Your task to perform on an android device: clear all cookies in the chrome app Image 0: 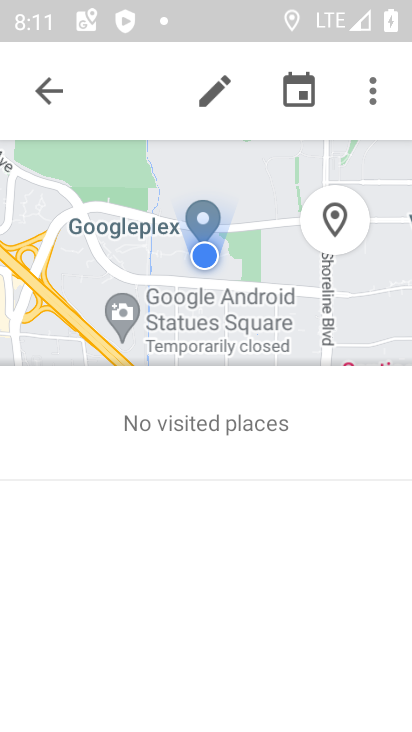
Step 0: press home button
Your task to perform on an android device: clear all cookies in the chrome app Image 1: 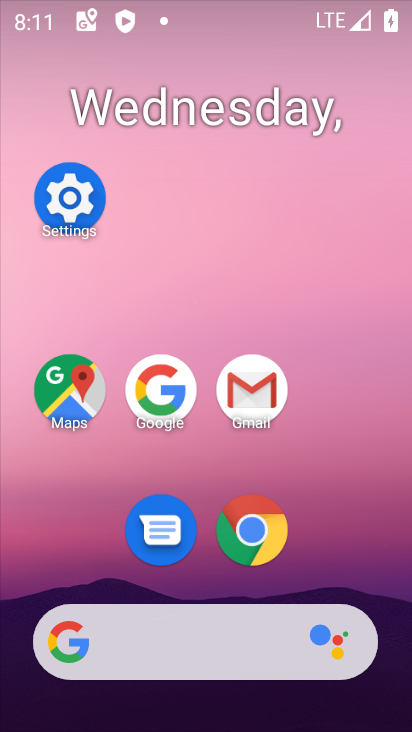
Step 1: click (246, 550)
Your task to perform on an android device: clear all cookies in the chrome app Image 2: 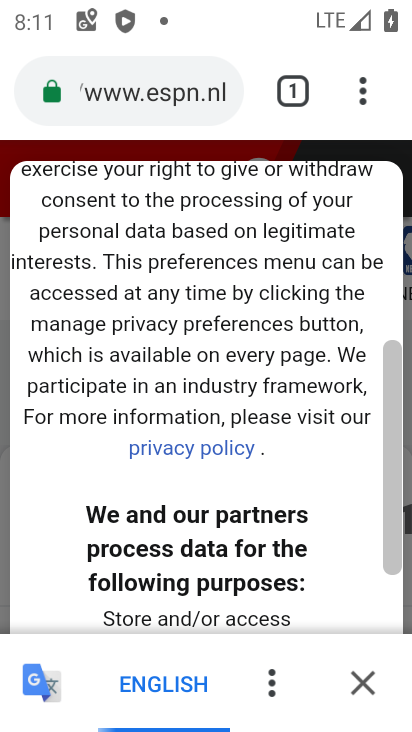
Step 2: click (372, 95)
Your task to perform on an android device: clear all cookies in the chrome app Image 3: 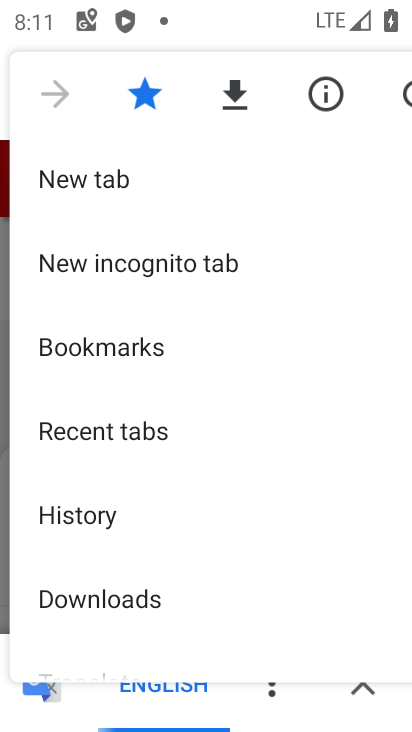
Step 3: drag from (271, 509) to (266, 127)
Your task to perform on an android device: clear all cookies in the chrome app Image 4: 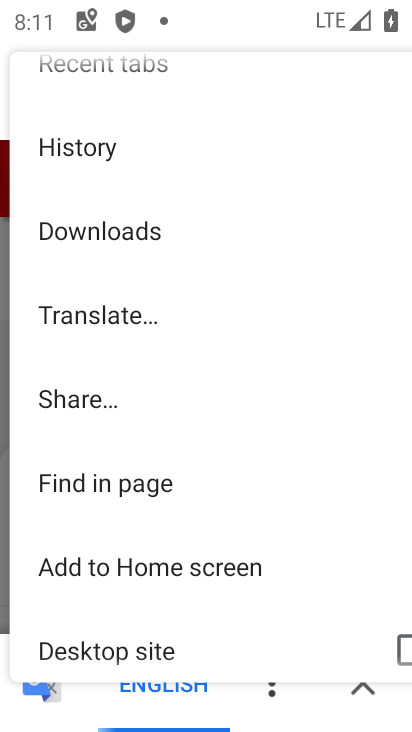
Step 4: drag from (183, 498) to (229, 167)
Your task to perform on an android device: clear all cookies in the chrome app Image 5: 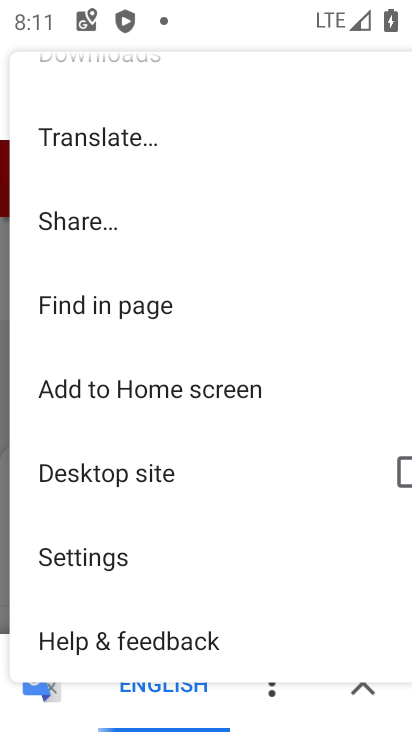
Step 5: click (135, 553)
Your task to perform on an android device: clear all cookies in the chrome app Image 6: 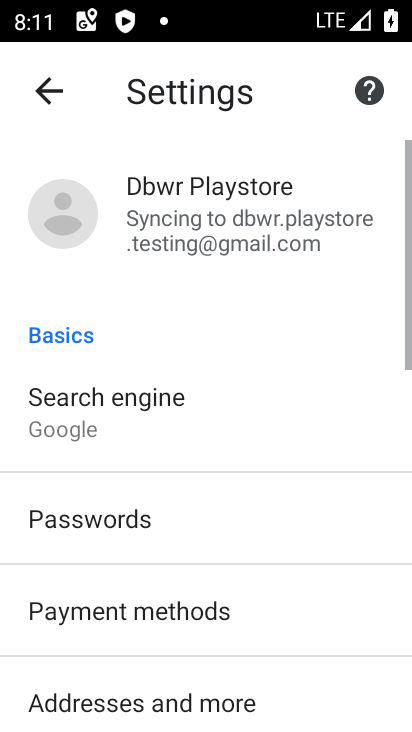
Step 6: drag from (120, 526) to (151, 150)
Your task to perform on an android device: clear all cookies in the chrome app Image 7: 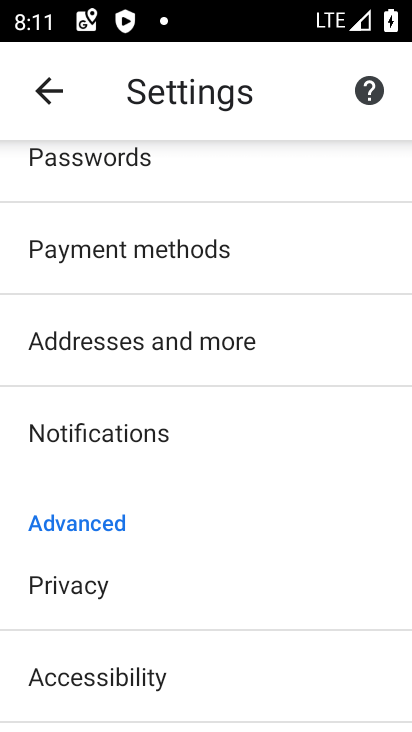
Step 7: click (88, 570)
Your task to perform on an android device: clear all cookies in the chrome app Image 8: 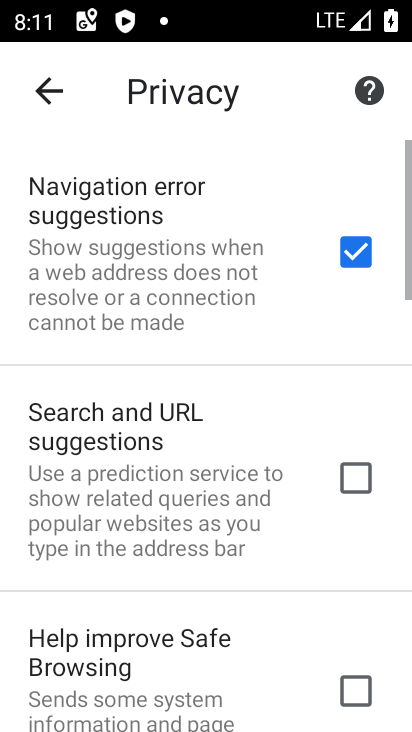
Step 8: drag from (88, 570) to (162, 98)
Your task to perform on an android device: clear all cookies in the chrome app Image 9: 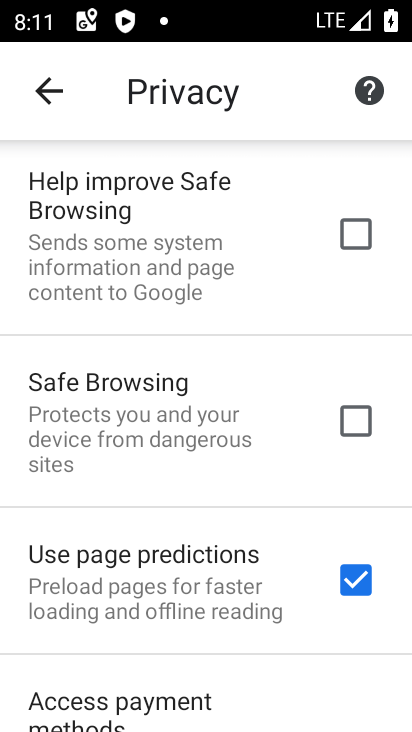
Step 9: drag from (209, 580) to (241, 195)
Your task to perform on an android device: clear all cookies in the chrome app Image 10: 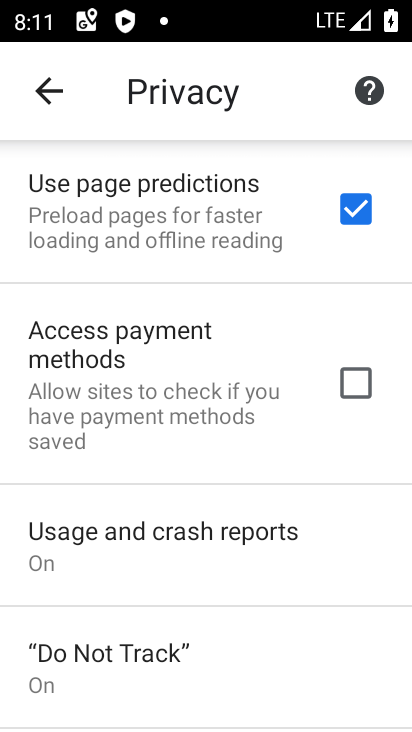
Step 10: drag from (253, 625) to (244, 225)
Your task to perform on an android device: clear all cookies in the chrome app Image 11: 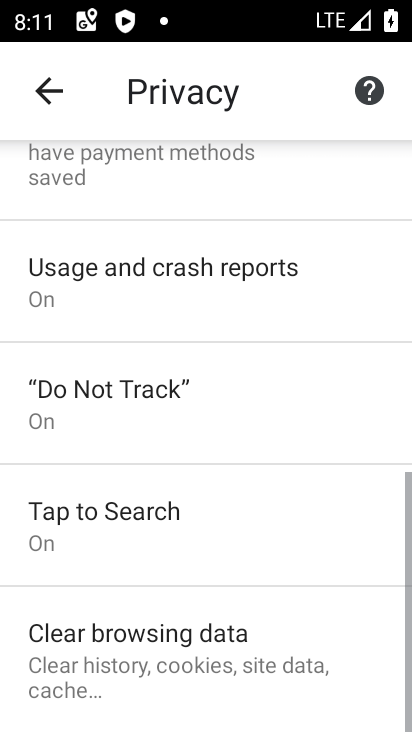
Step 11: click (224, 646)
Your task to perform on an android device: clear all cookies in the chrome app Image 12: 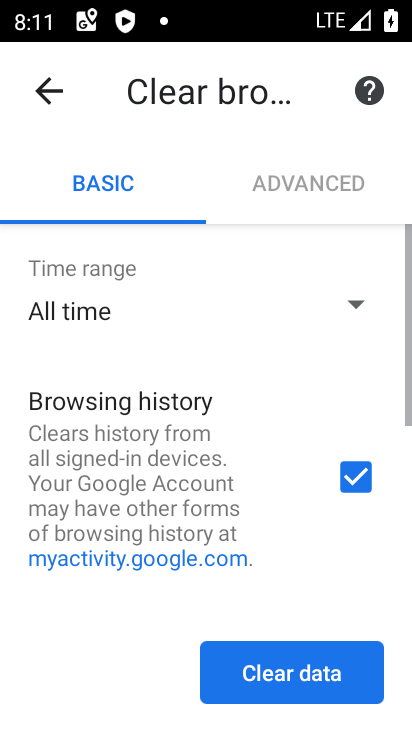
Step 12: drag from (212, 609) to (244, 254)
Your task to perform on an android device: clear all cookies in the chrome app Image 13: 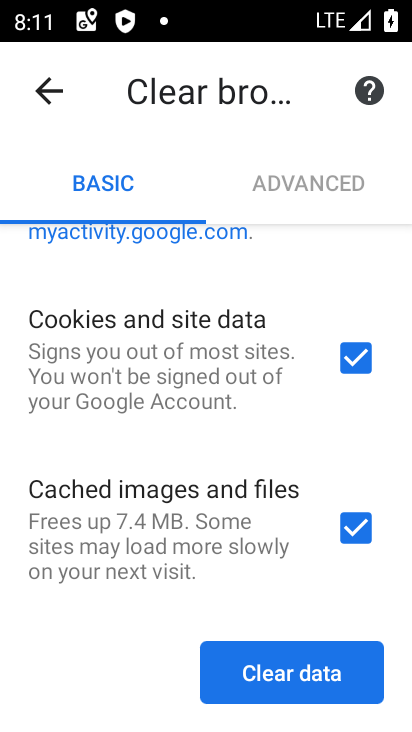
Step 13: click (377, 675)
Your task to perform on an android device: clear all cookies in the chrome app Image 14: 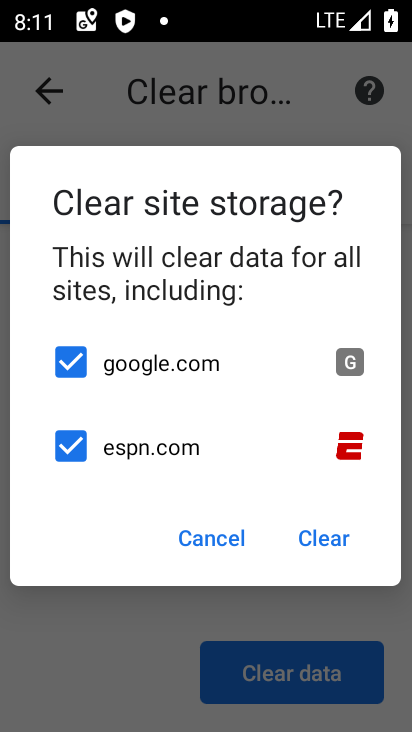
Step 14: click (365, 551)
Your task to perform on an android device: clear all cookies in the chrome app Image 15: 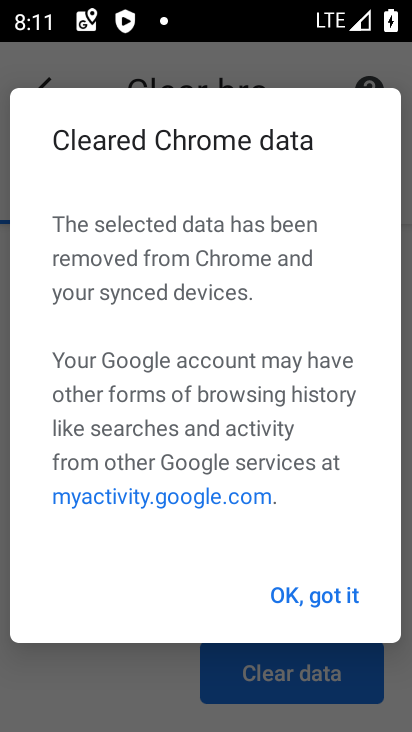
Step 15: click (362, 595)
Your task to perform on an android device: clear all cookies in the chrome app Image 16: 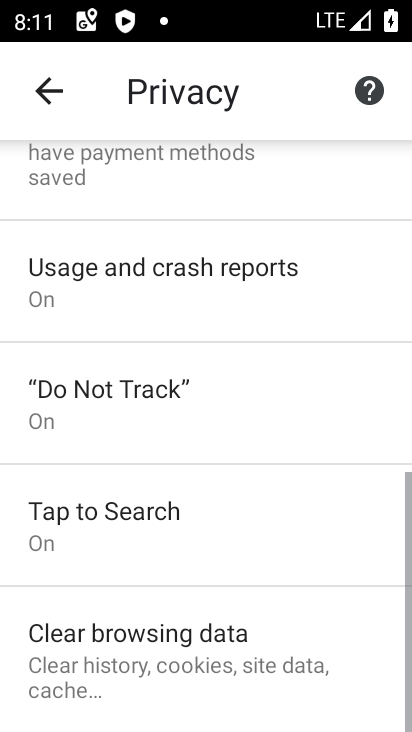
Step 16: task complete